Your task to perform on an android device: Open eBay Image 0: 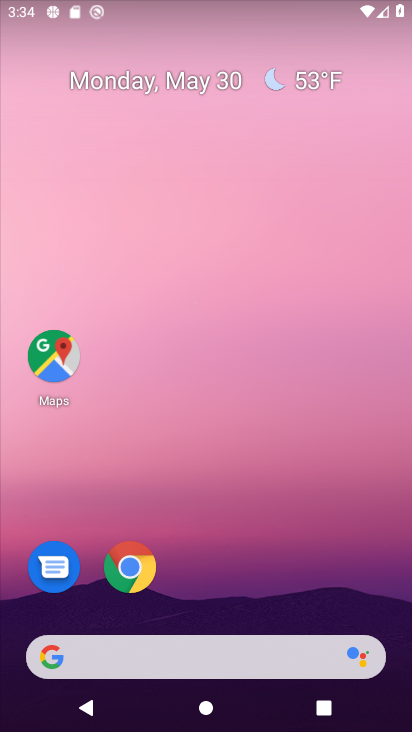
Step 0: drag from (232, 626) to (337, 5)
Your task to perform on an android device: Open eBay Image 1: 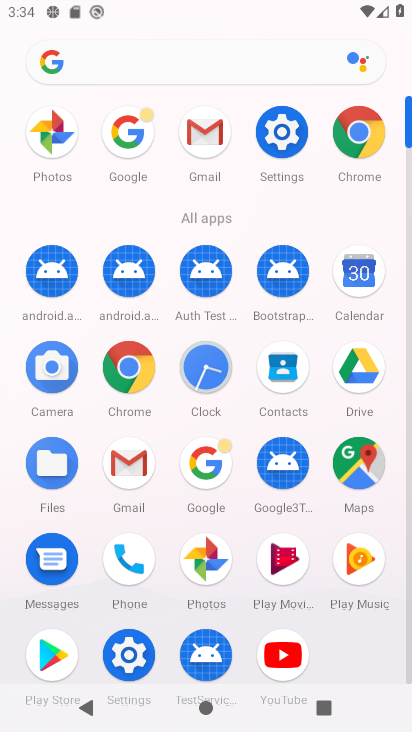
Step 1: click (126, 358)
Your task to perform on an android device: Open eBay Image 2: 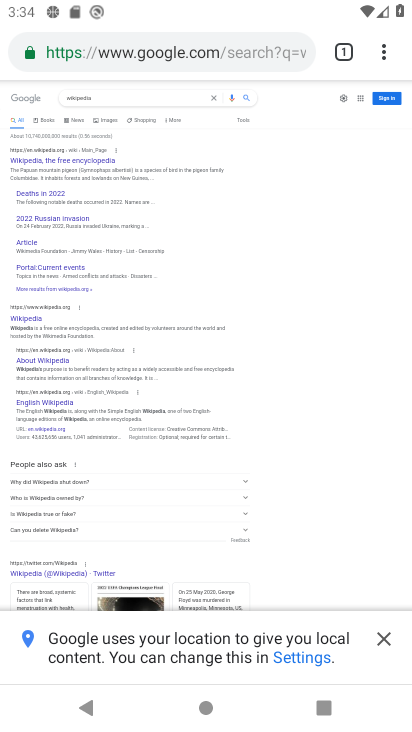
Step 2: click (190, 58)
Your task to perform on an android device: Open eBay Image 3: 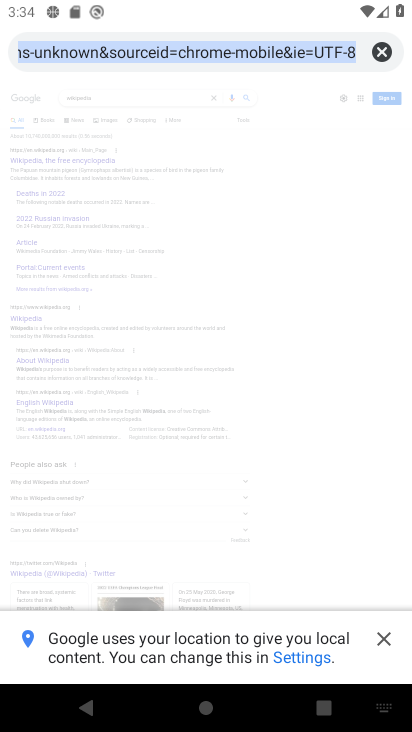
Step 3: type "ebay"
Your task to perform on an android device: Open eBay Image 4: 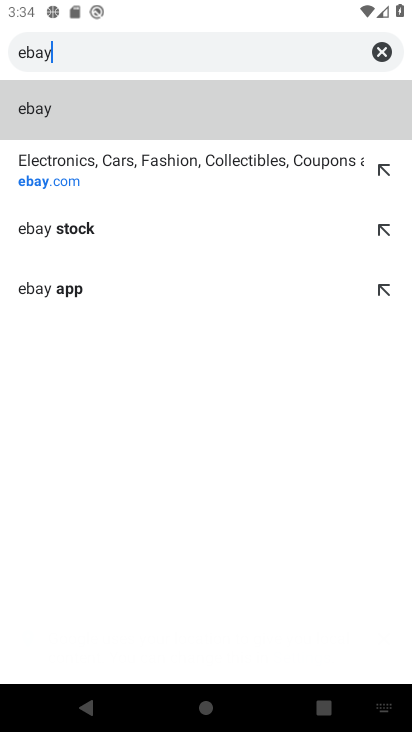
Step 4: click (200, 171)
Your task to perform on an android device: Open eBay Image 5: 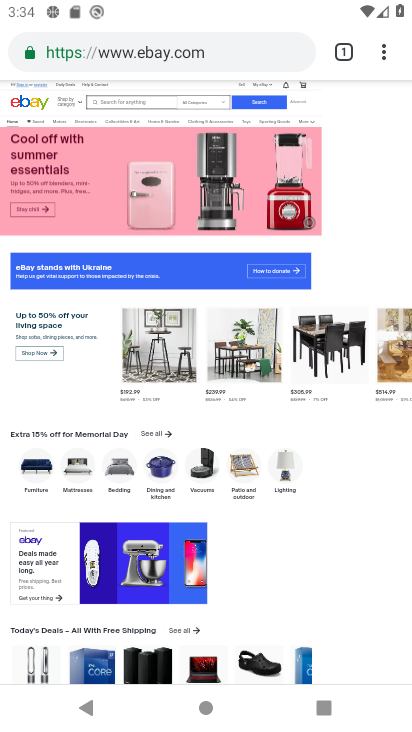
Step 5: task complete